Your task to perform on an android device: see creations saved in the google photos Image 0: 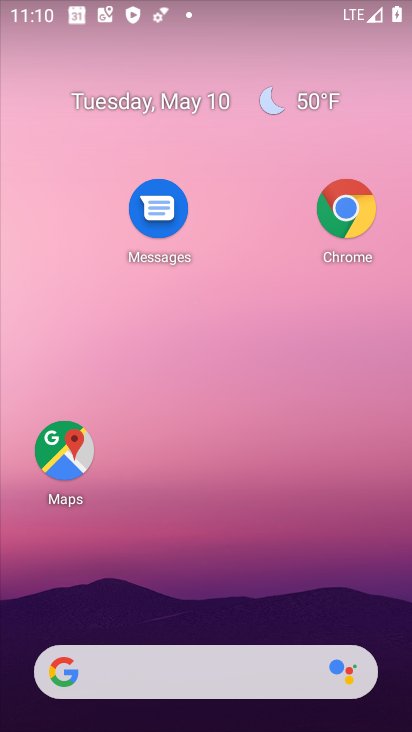
Step 0: drag from (222, 632) to (268, 20)
Your task to perform on an android device: see creations saved in the google photos Image 1: 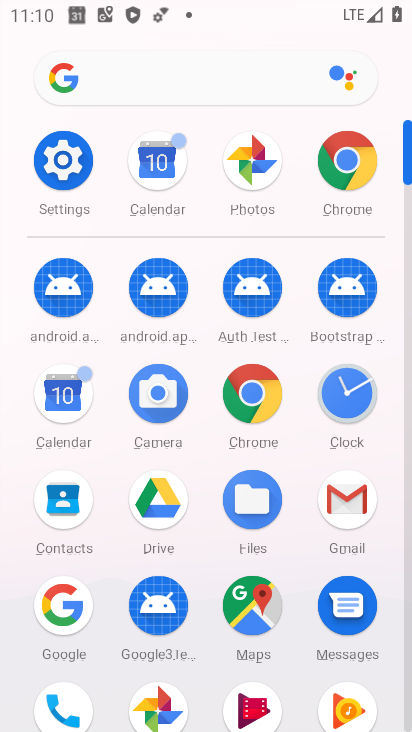
Step 1: click (162, 705)
Your task to perform on an android device: see creations saved in the google photos Image 2: 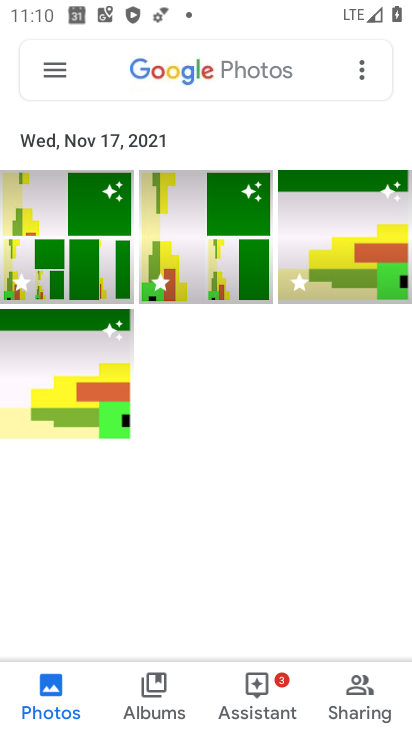
Step 2: click (206, 87)
Your task to perform on an android device: see creations saved in the google photos Image 3: 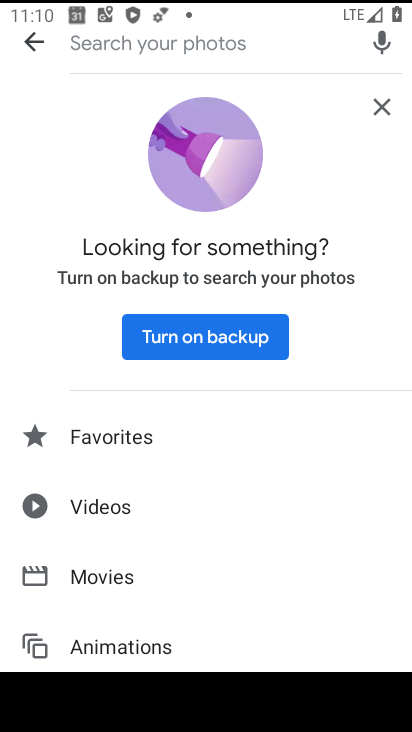
Step 3: drag from (202, 556) to (189, 86)
Your task to perform on an android device: see creations saved in the google photos Image 4: 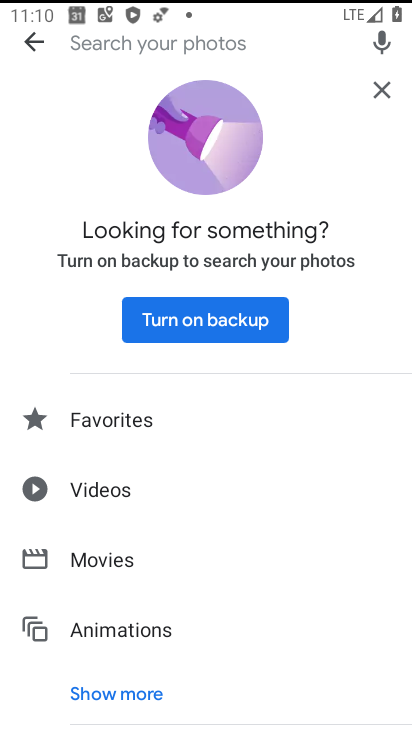
Step 4: click (119, 696)
Your task to perform on an android device: see creations saved in the google photos Image 5: 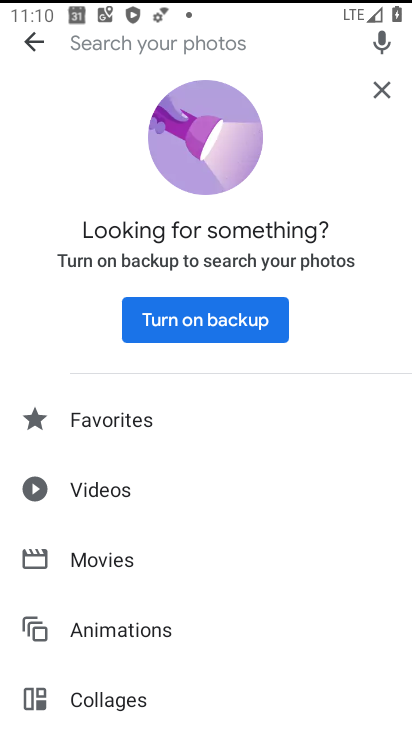
Step 5: drag from (118, 695) to (114, 223)
Your task to perform on an android device: see creations saved in the google photos Image 6: 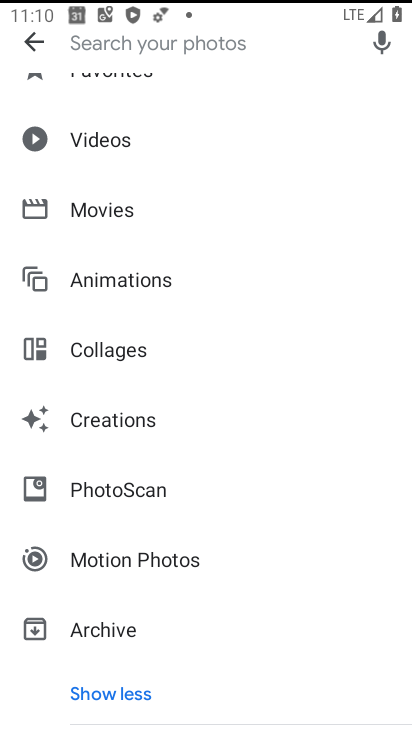
Step 6: click (106, 422)
Your task to perform on an android device: see creations saved in the google photos Image 7: 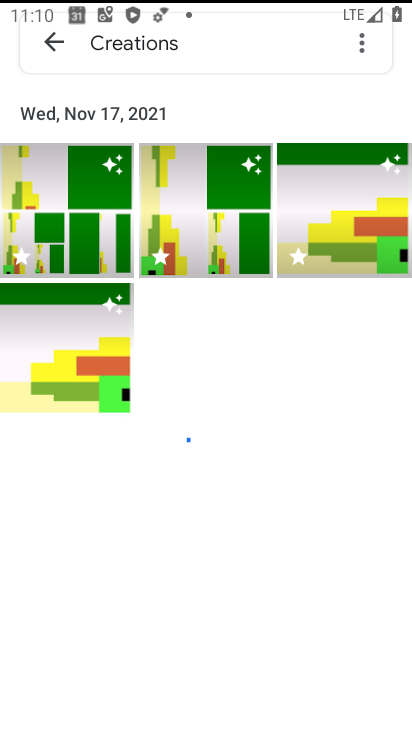
Step 7: task complete